Your task to perform on an android device: turn off notifications settings in the gmail app Image 0: 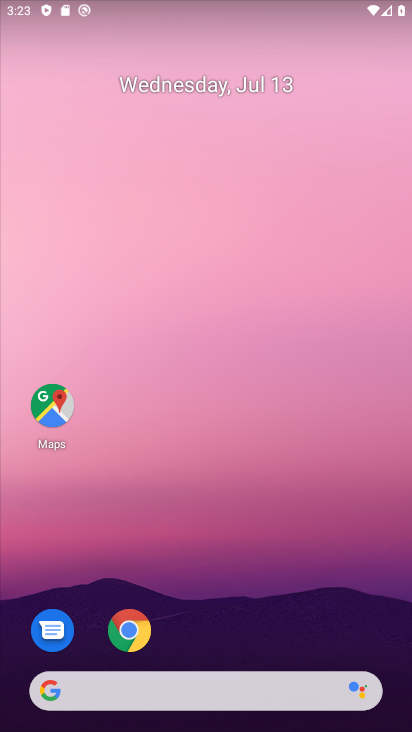
Step 0: drag from (188, 571) to (197, 150)
Your task to perform on an android device: turn off notifications settings in the gmail app Image 1: 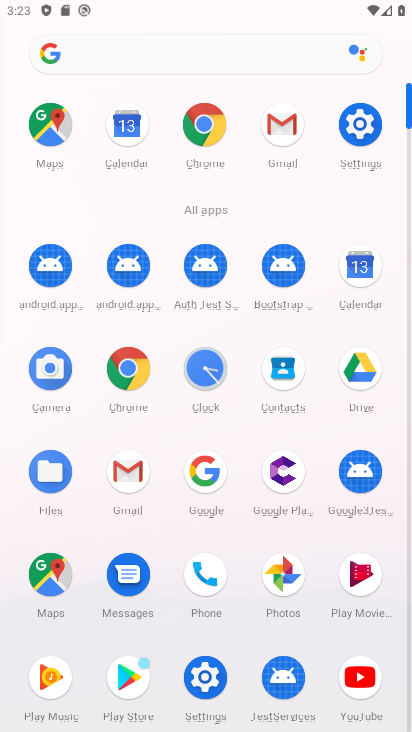
Step 1: click (282, 127)
Your task to perform on an android device: turn off notifications settings in the gmail app Image 2: 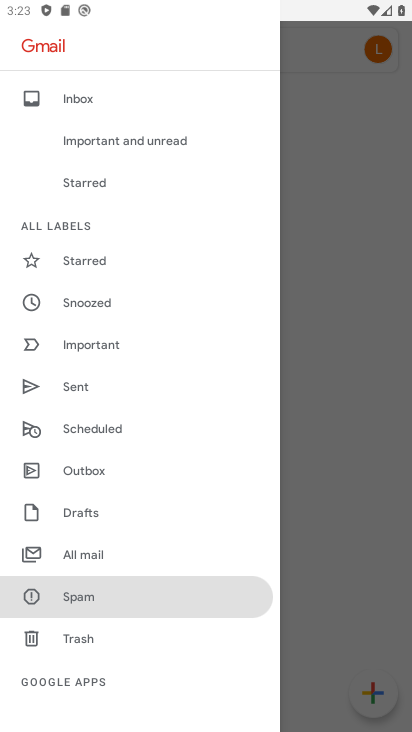
Step 2: drag from (188, 637) to (188, 352)
Your task to perform on an android device: turn off notifications settings in the gmail app Image 3: 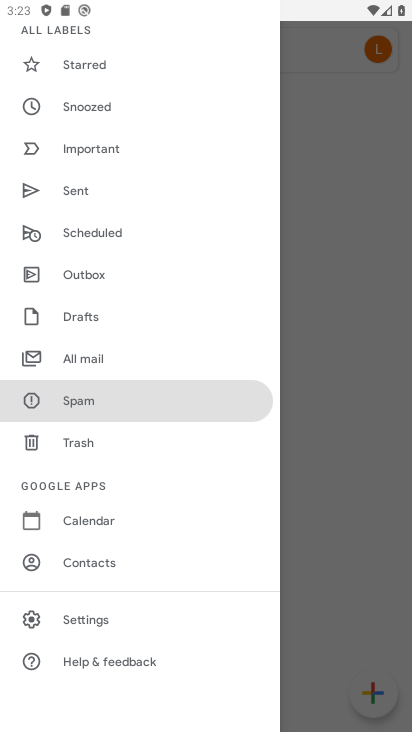
Step 3: click (93, 616)
Your task to perform on an android device: turn off notifications settings in the gmail app Image 4: 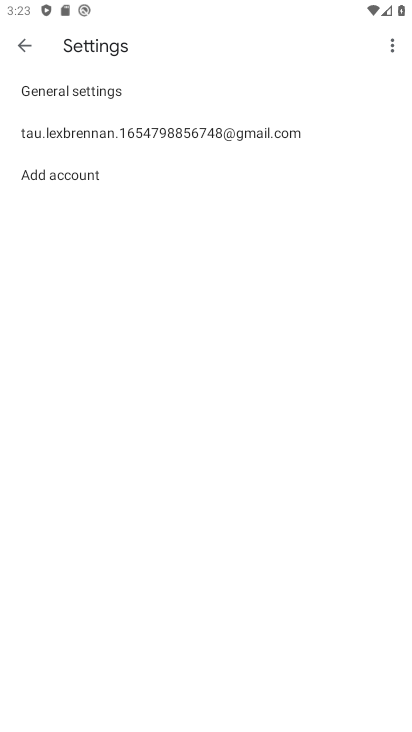
Step 4: click (52, 89)
Your task to perform on an android device: turn off notifications settings in the gmail app Image 5: 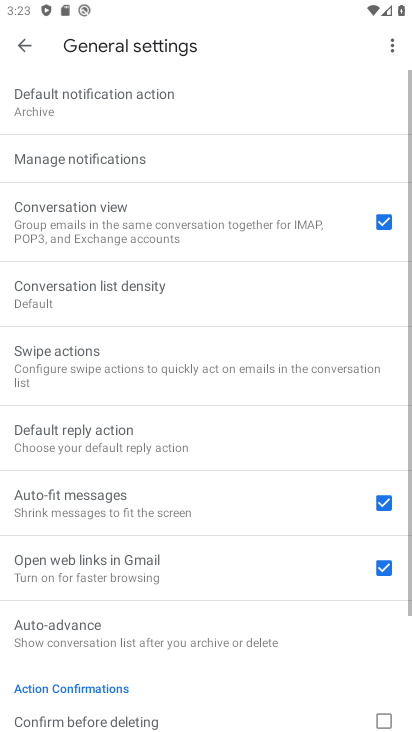
Step 5: click (91, 161)
Your task to perform on an android device: turn off notifications settings in the gmail app Image 6: 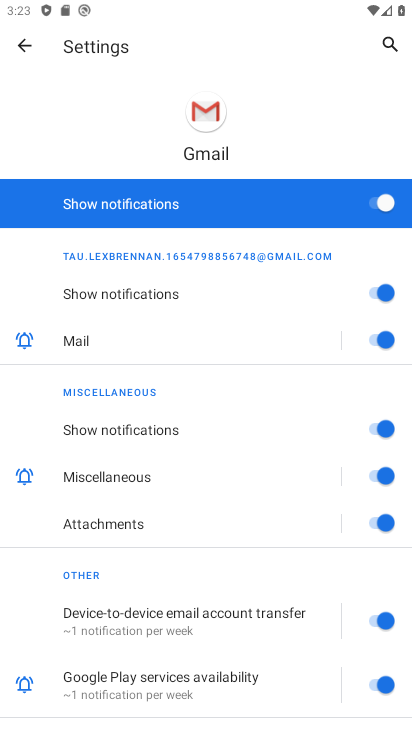
Step 6: click (384, 199)
Your task to perform on an android device: turn off notifications settings in the gmail app Image 7: 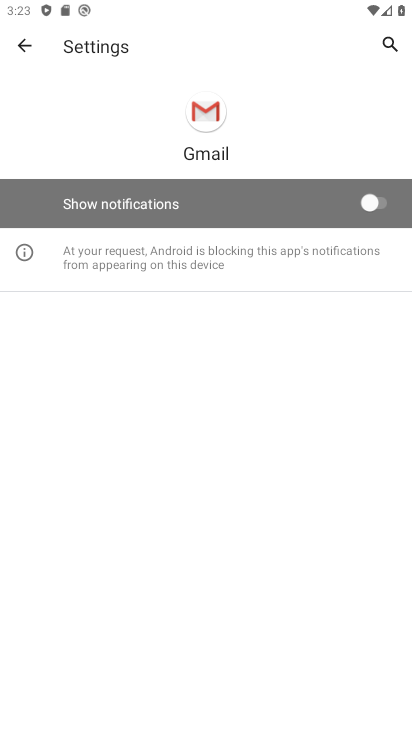
Step 7: task complete